Your task to perform on an android device: open app "Microsoft Outlook" (install if not already installed) and enter user name: "brand@gmail.com" and password: "persuasiveness" Image 0: 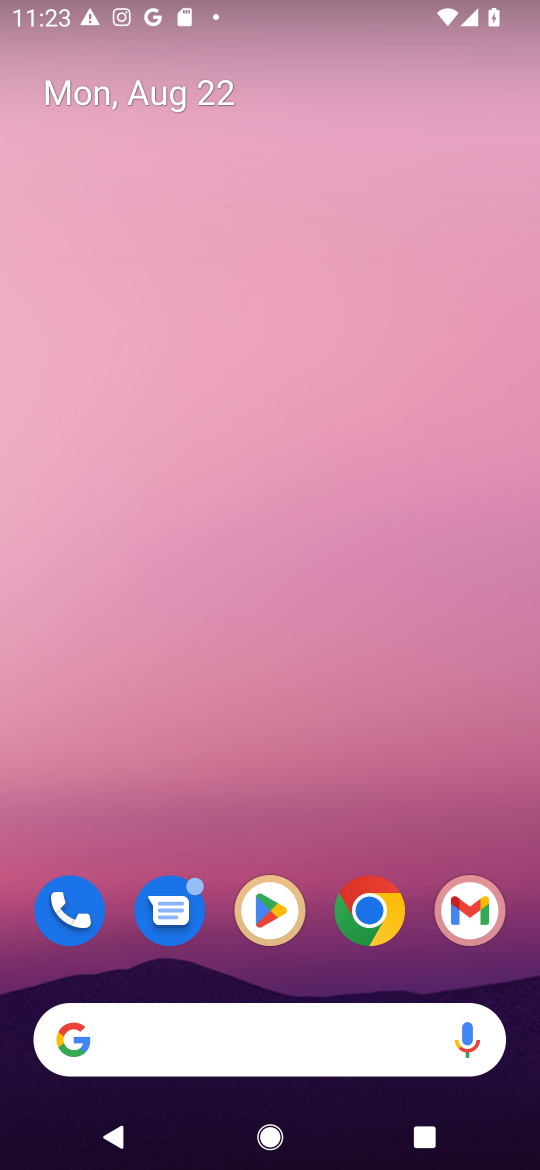
Step 0: click (272, 923)
Your task to perform on an android device: open app "Microsoft Outlook" (install if not already installed) and enter user name: "brand@gmail.com" and password: "persuasiveness" Image 1: 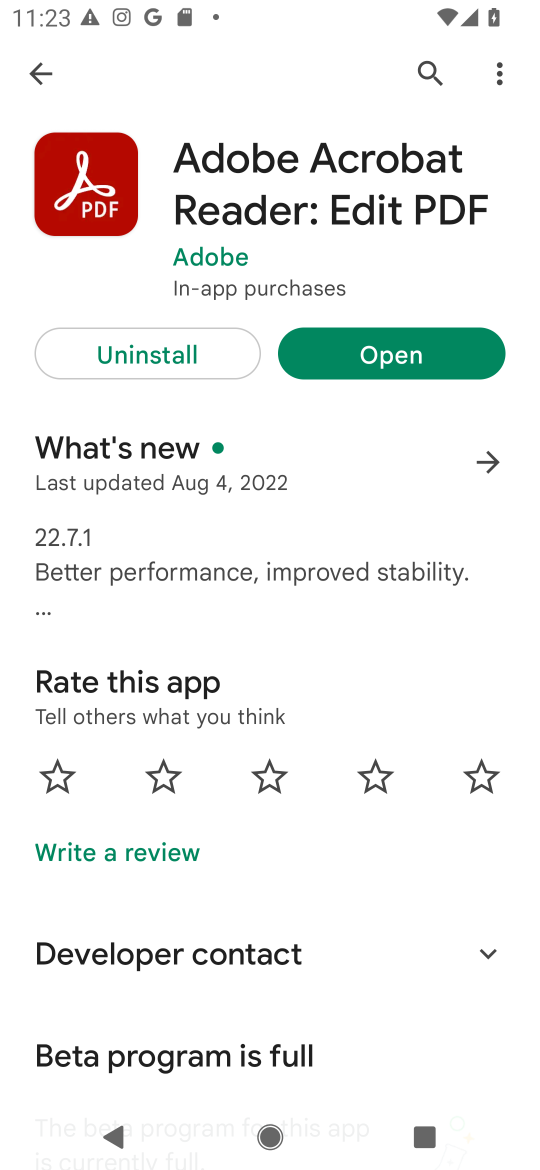
Step 1: click (424, 76)
Your task to perform on an android device: open app "Microsoft Outlook" (install if not already installed) and enter user name: "brand@gmail.com" and password: "persuasiveness" Image 2: 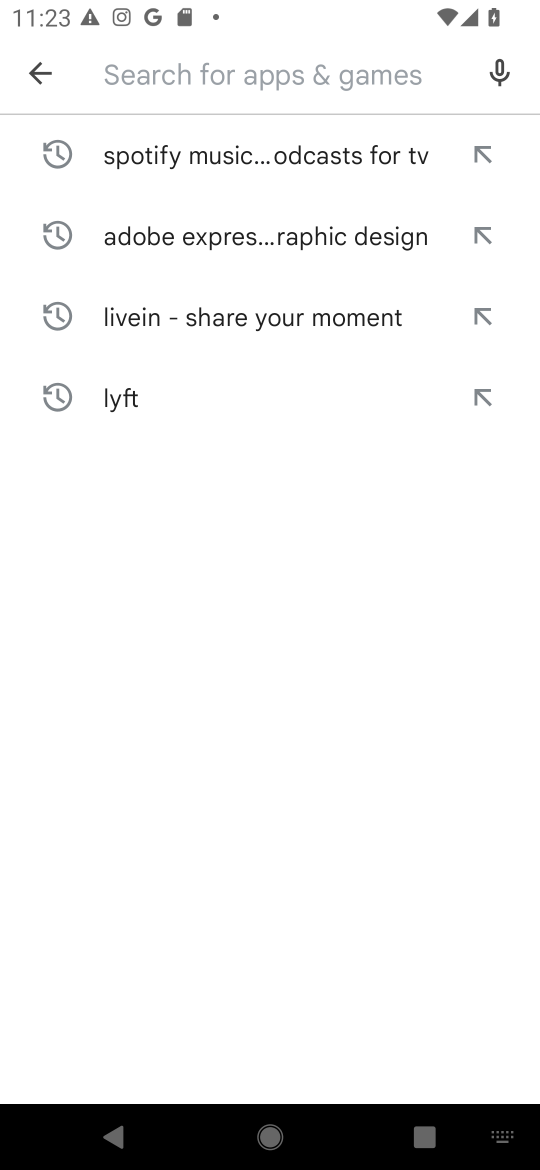
Step 2: type "Microsoft Outlook"
Your task to perform on an android device: open app "Microsoft Outlook" (install if not already installed) and enter user name: "brand@gmail.com" and password: "persuasiveness" Image 3: 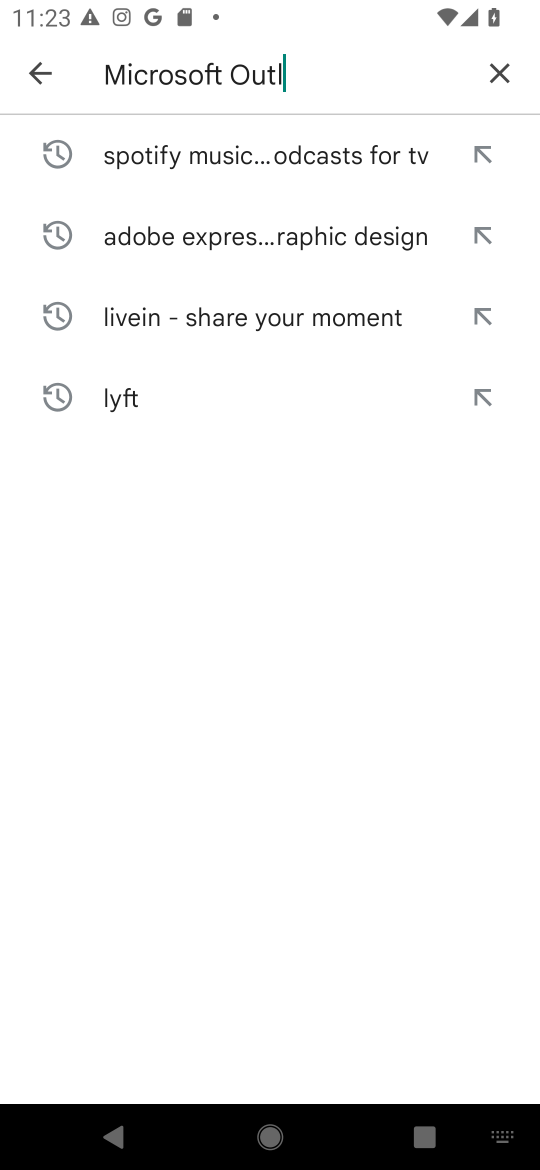
Step 3: type ""
Your task to perform on an android device: open app "Microsoft Outlook" (install if not already installed) and enter user name: "brand@gmail.com" and password: "persuasiveness" Image 4: 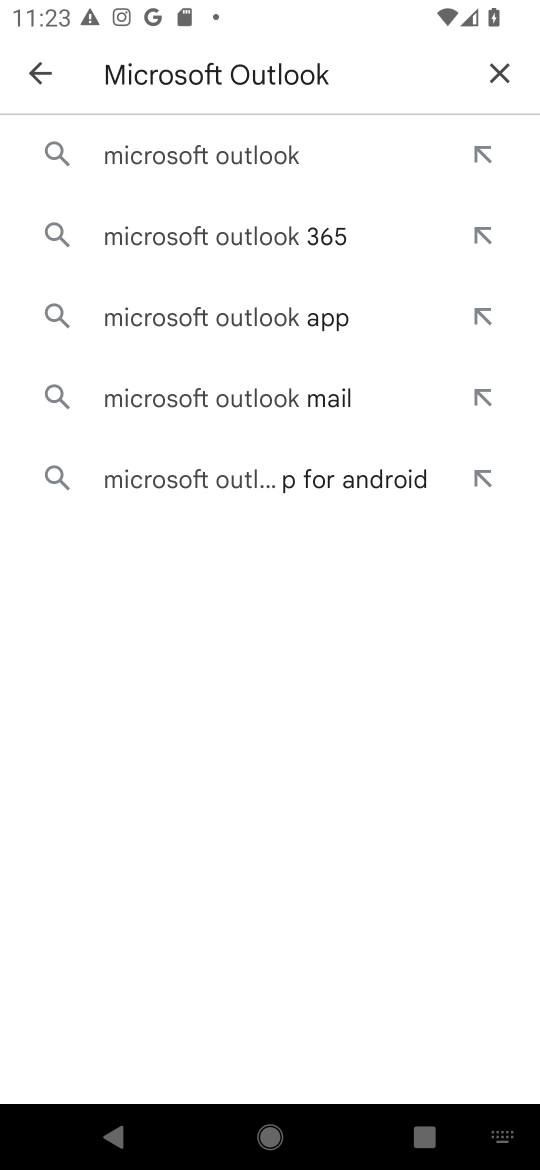
Step 4: click (267, 155)
Your task to perform on an android device: open app "Microsoft Outlook" (install if not already installed) and enter user name: "brand@gmail.com" and password: "persuasiveness" Image 5: 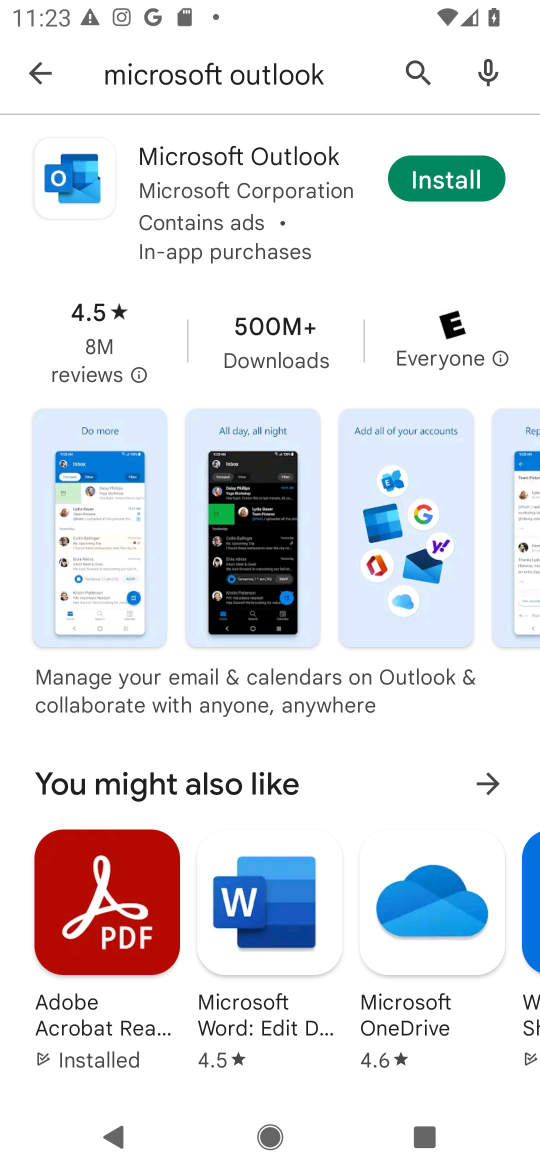
Step 5: click (455, 165)
Your task to perform on an android device: open app "Microsoft Outlook" (install if not already installed) and enter user name: "brand@gmail.com" and password: "persuasiveness" Image 6: 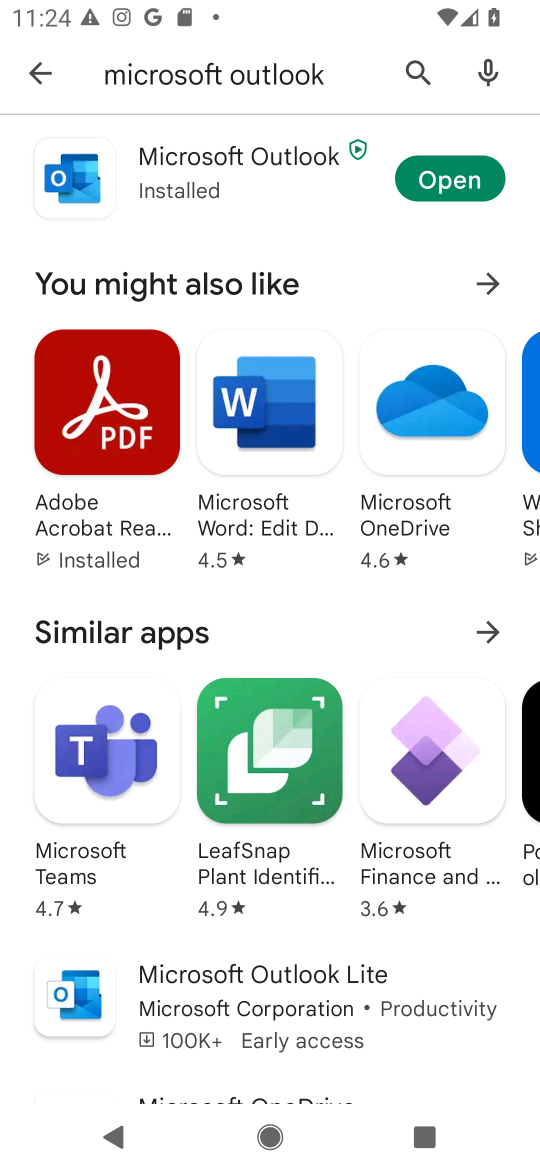
Step 6: click (423, 170)
Your task to perform on an android device: open app "Microsoft Outlook" (install if not already installed) and enter user name: "brand@gmail.com" and password: "persuasiveness" Image 7: 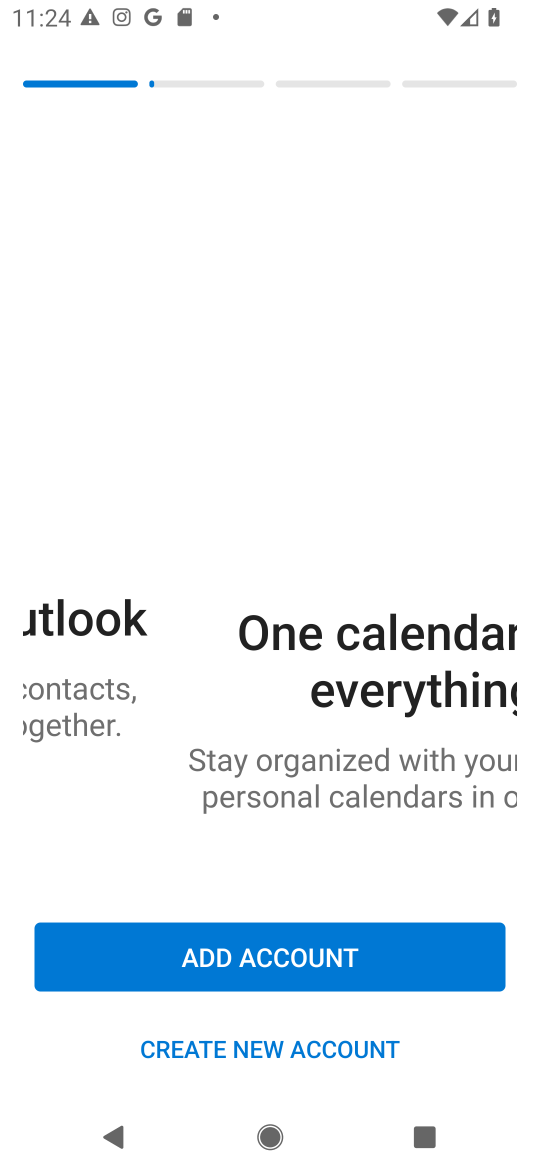
Step 7: task complete